Your task to perform on an android device: Go to CNN.com Image 0: 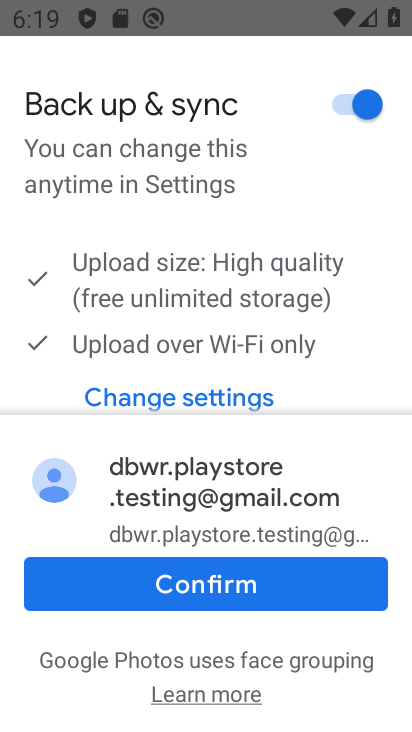
Step 0: press home button
Your task to perform on an android device: Go to CNN.com Image 1: 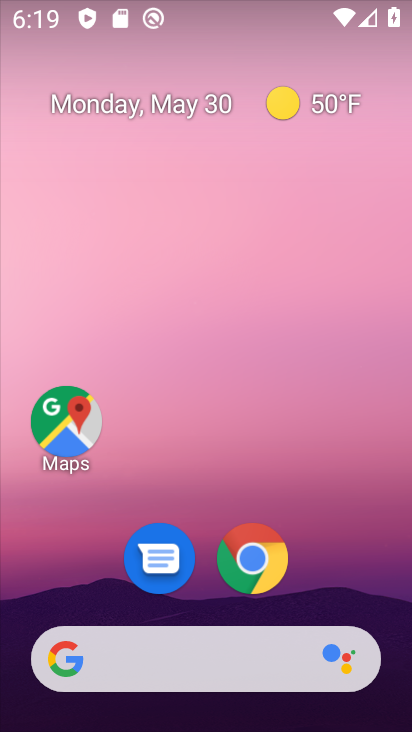
Step 1: click (252, 547)
Your task to perform on an android device: Go to CNN.com Image 2: 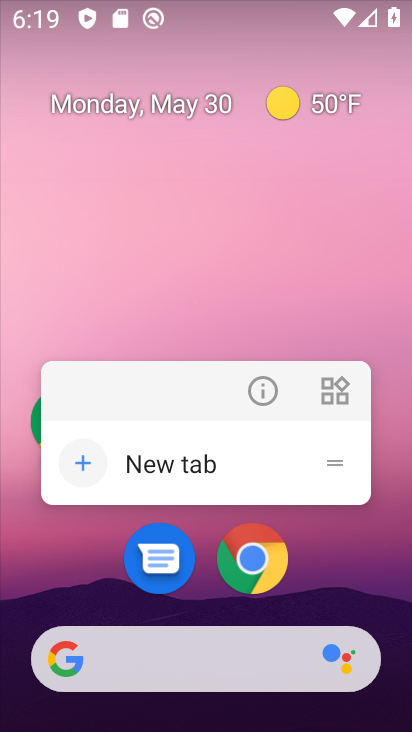
Step 2: click (278, 250)
Your task to perform on an android device: Go to CNN.com Image 3: 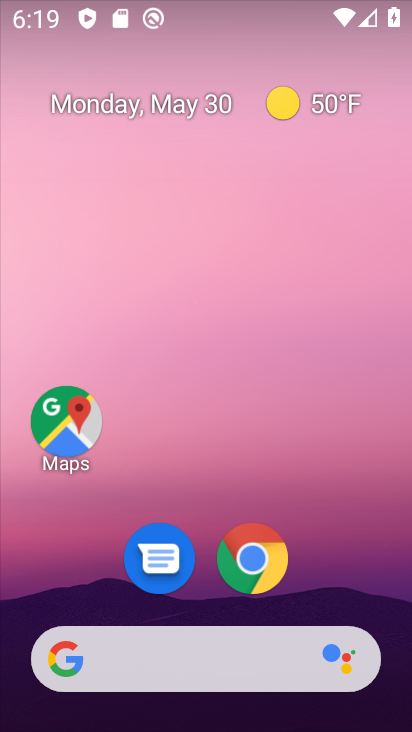
Step 3: click (251, 560)
Your task to perform on an android device: Go to CNN.com Image 4: 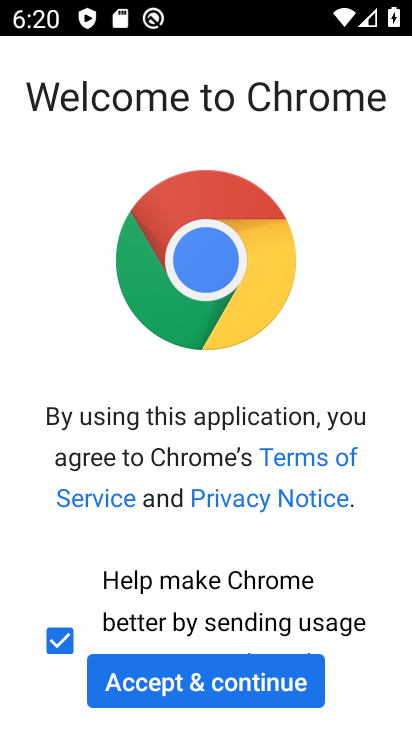
Step 4: click (227, 690)
Your task to perform on an android device: Go to CNN.com Image 5: 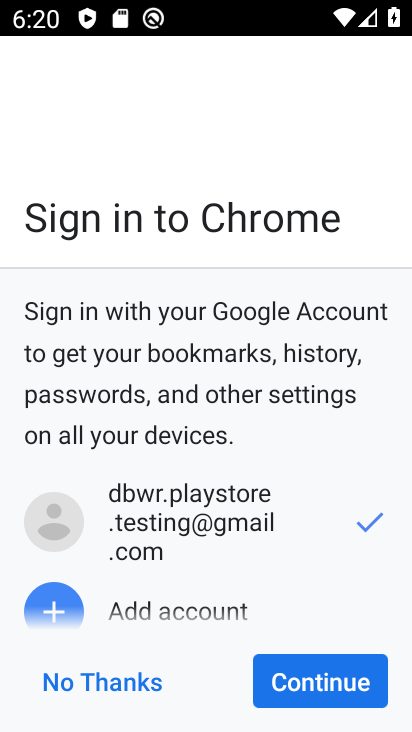
Step 5: click (297, 686)
Your task to perform on an android device: Go to CNN.com Image 6: 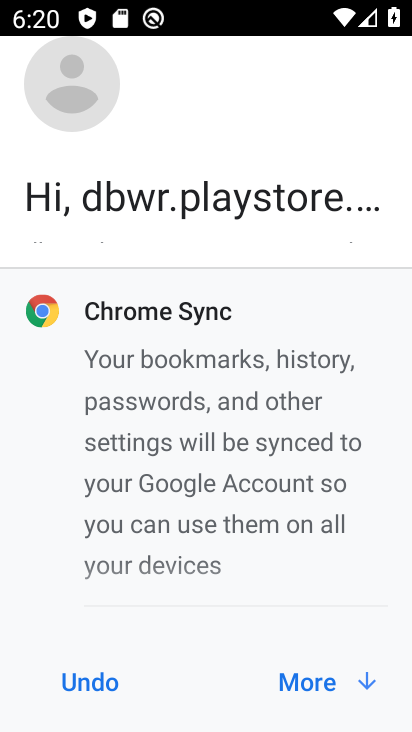
Step 6: click (347, 688)
Your task to perform on an android device: Go to CNN.com Image 7: 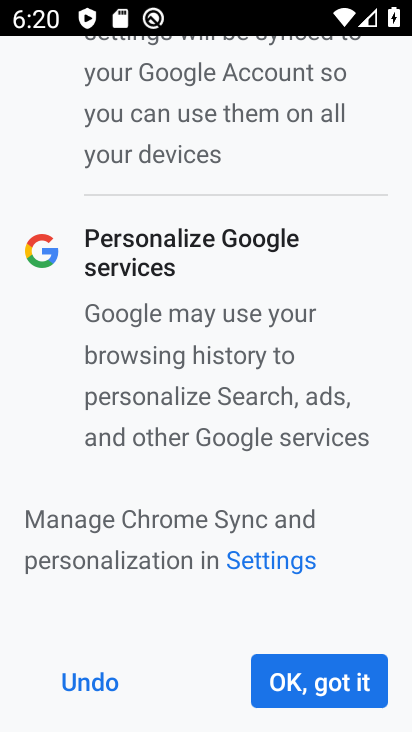
Step 7: click (347, 688)
Your task to perform on an android device: Go to CNN.com Image 8: 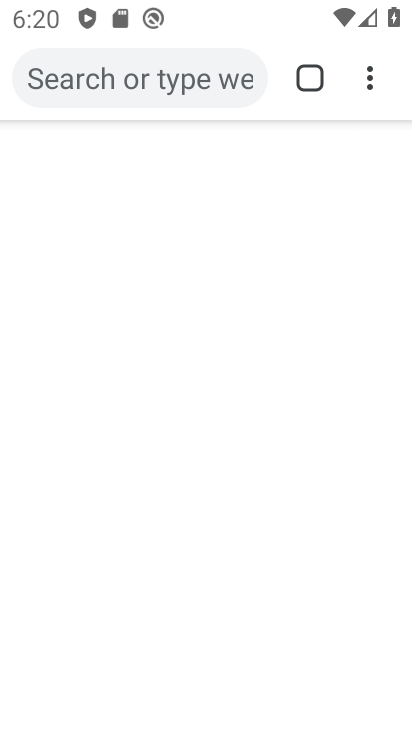
Step 8: click (347, 688)
Your task to perform on an android device: Go to CNN.com Image 9: 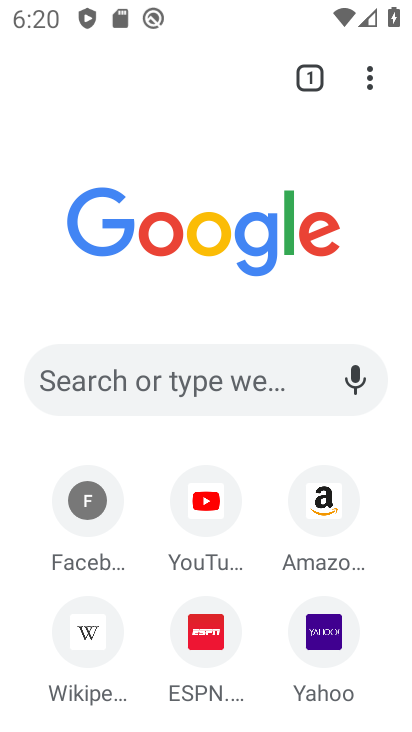
Step 9: click (164, 373)
Your task to perform on an android device: Go to CNN.com Image 10: 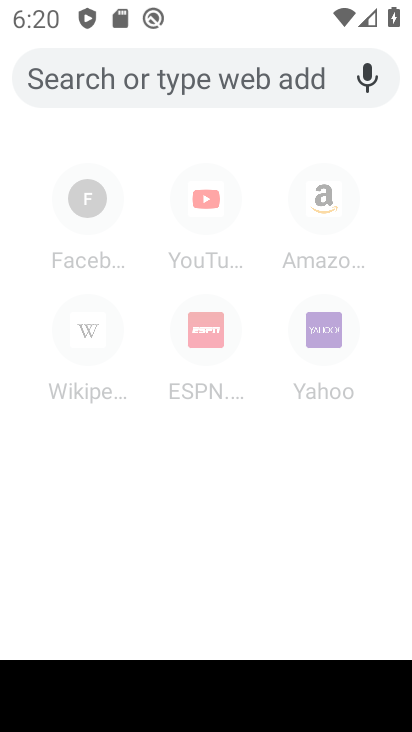
Step 10: type " CNN.com"
Your task to perform on an android device: Go to CNN.com Image 11: 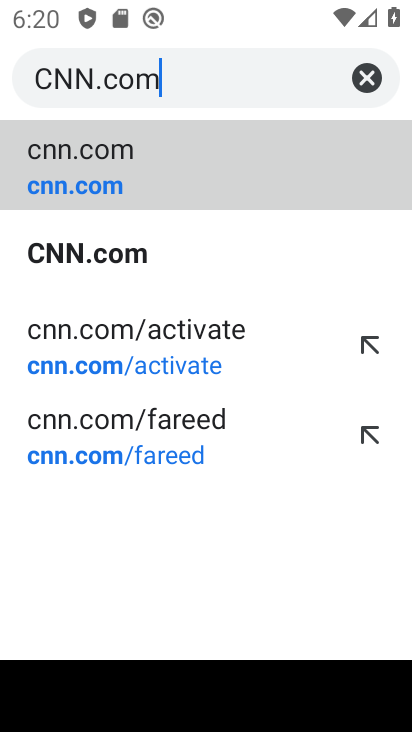
Step 11: click (73, 179)
Your task to perform on an android device: Go to CNN.com Image 12: 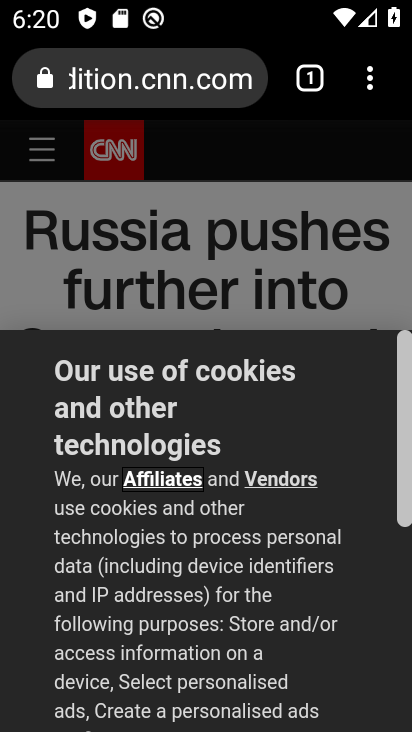
Step 12: task complete